Your task to perform on an android device: Open settings Image 0: 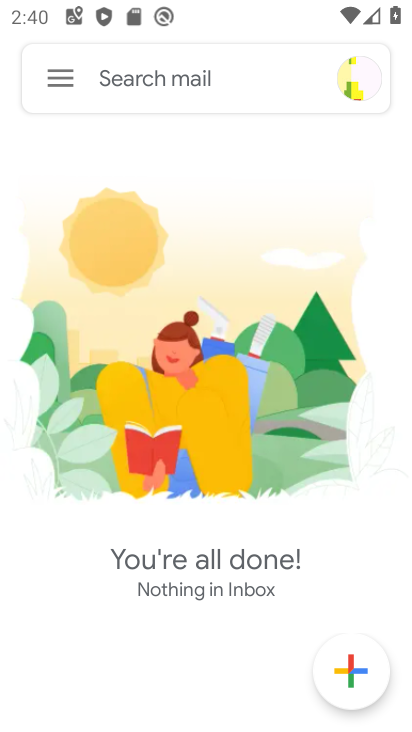
Step 0: press home button
Your task to perform on an android device: Open settings Image 1: 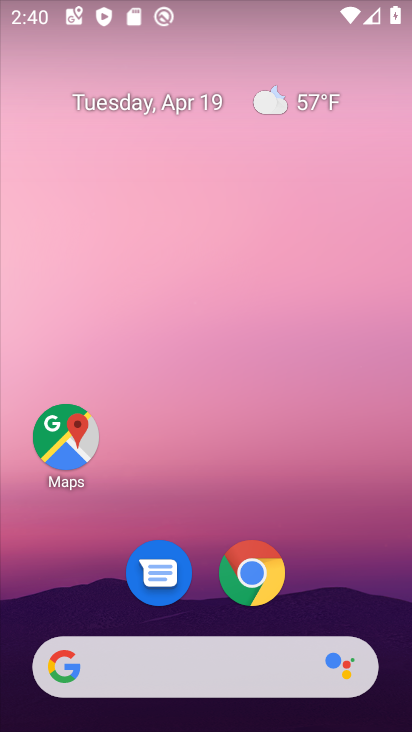
Step 1: drag from (343, 588) to (330, 4)
Your task to perform on an android device: Open settings Image 2: 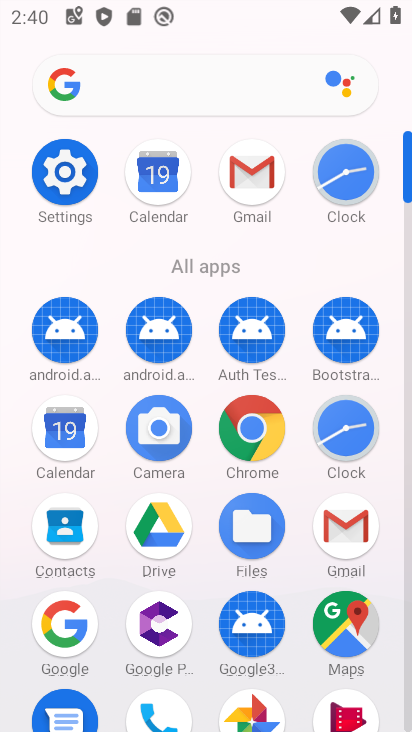
Step 2: click (56, 179)
Your task to perform on an android device: Open settings Image 3: 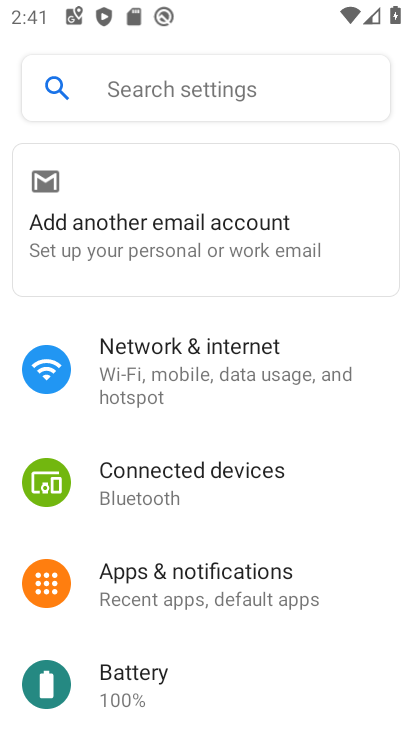
Step 3: task complete